Your task to perform on an android device: Open Google Chrome and click the shortcut for Amazon.com Image 0: 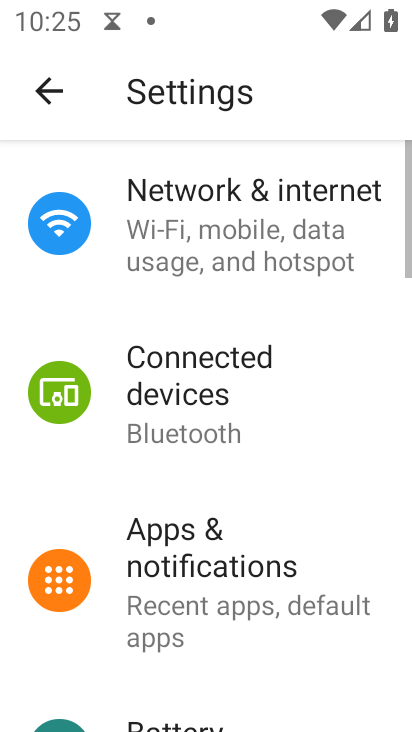
Step 0: press home button
Your task to perform on an android device: Open Google Chrome and click the shortcut for Amazon.com Image 1: 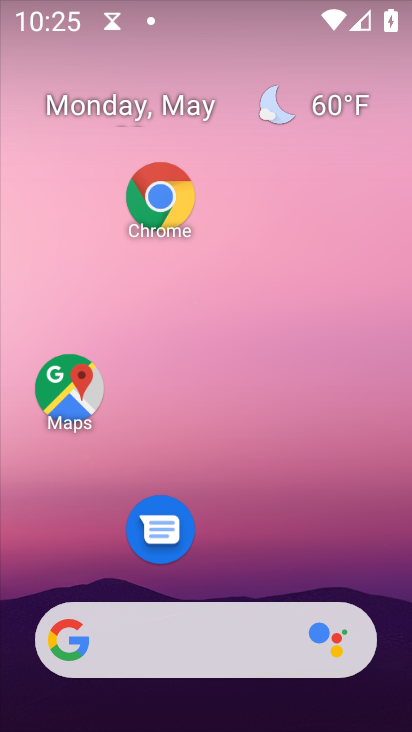
Step 1: click (158, 195)
Your task to perform on an android device: Open Google Chrome and click the shortcut for Amazon.com Image 2: 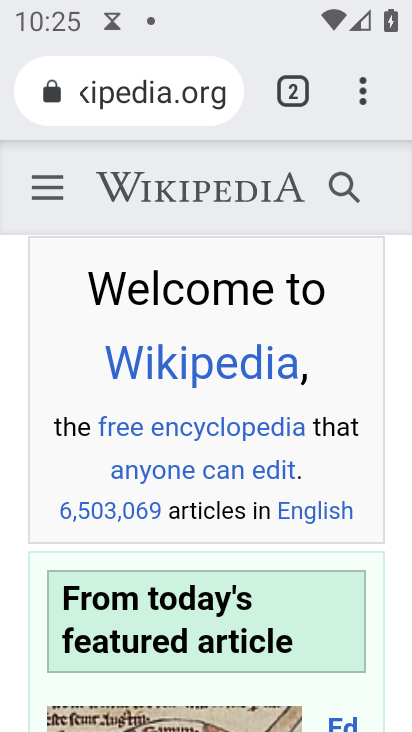
Step 2: press back button
Your task to perform on an android device: Open Google Chrome and click the shortcut for Amazon.com Image 3: 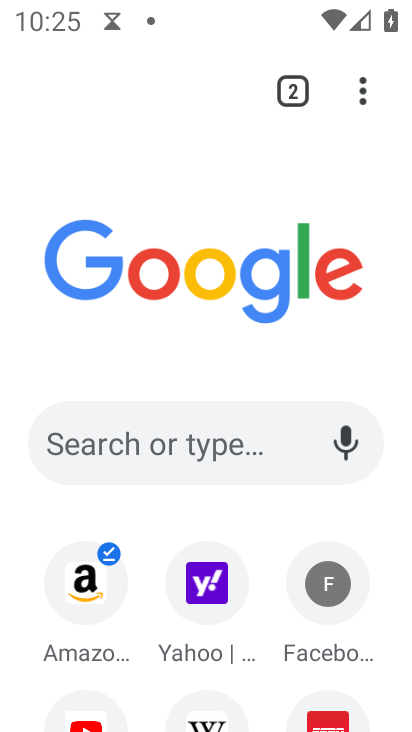
Step 3: click (90, 595)
Your task to perform on an android device: Open Google Chrome and click the shortcut for Amazon.com Image 4: 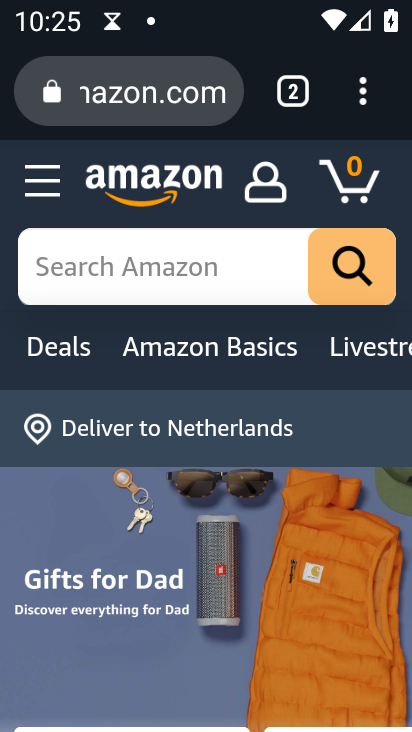
Step 4: task complete